Your task to perform on an android device: star an email in the gmail app Image 0: 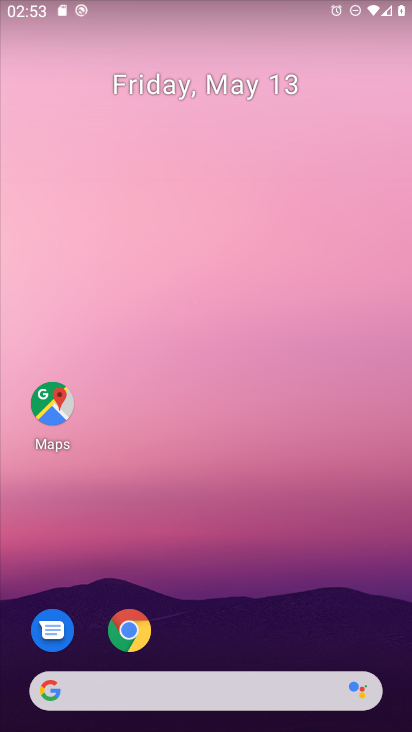
Step 0: drag from (266, 716) to (162, 206)
Your task to perform on an android device: star an email in the gmail app Image 1: 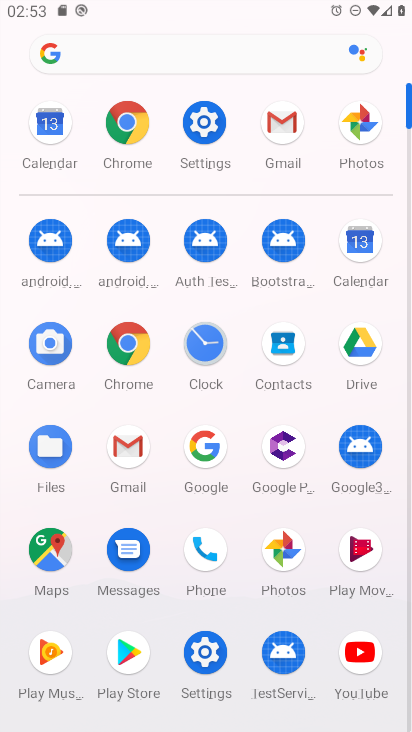
Step 1: click (133, 452)
Your task to perform on an android device: star an email in the gmail app Image 2: 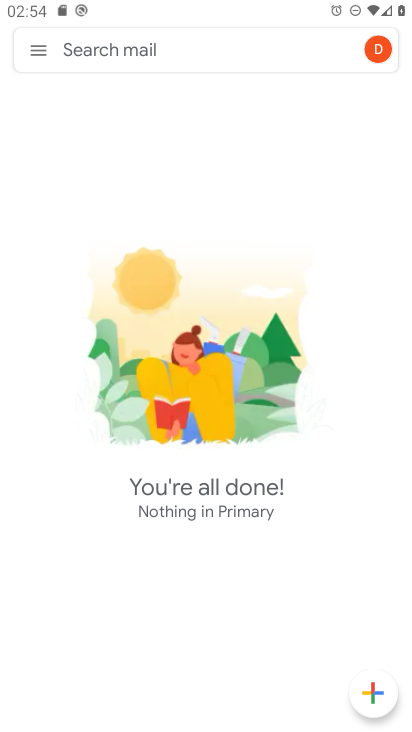
Step 2: click (51, 50)
Your task to perform on an android device: star an email in the gmail app Image 3: 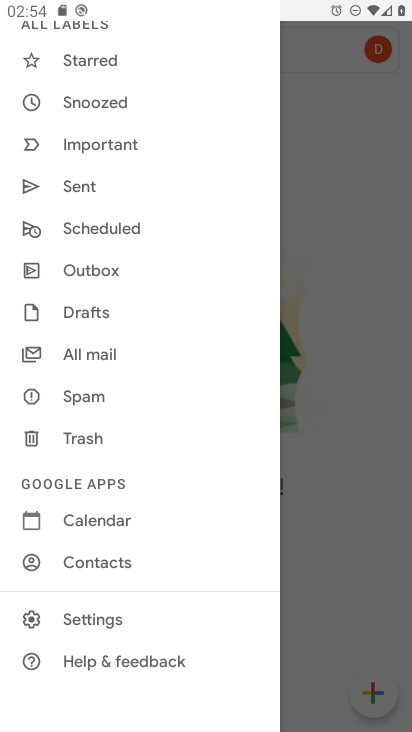
Step 3: click (106, 68)
Your task to perform on an android device: star an email in the gmail app Image 4: 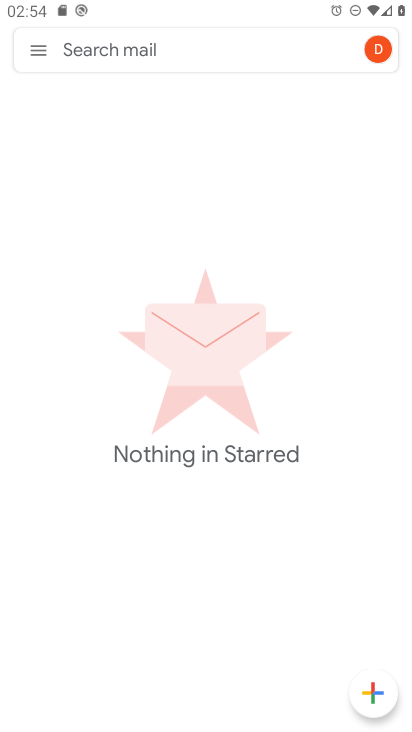
Step 4: task complete